Your task to perform on an android device: turn off airplane mode Image 0: 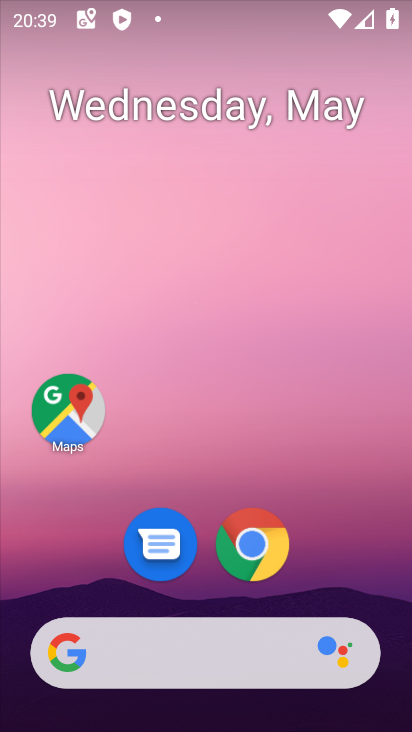
Step 0: drag from (130, 595) to (147, 700)
Your task to perform on an android device: turn off airplane mode Image 1: 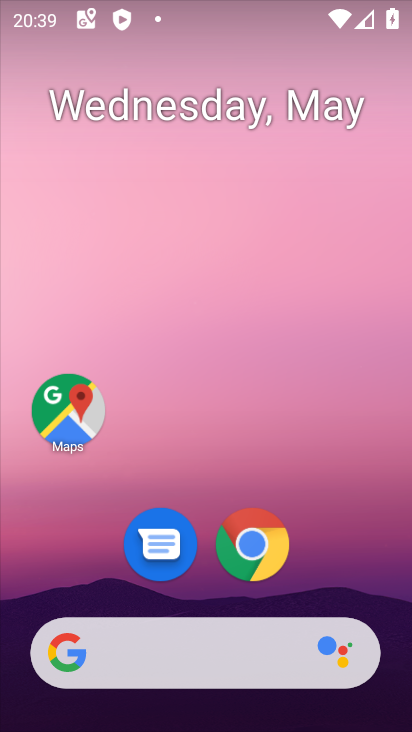
Step 1: task complete